Your task to perform on an android device: Search for sushi restaurants on Maps Image 0: 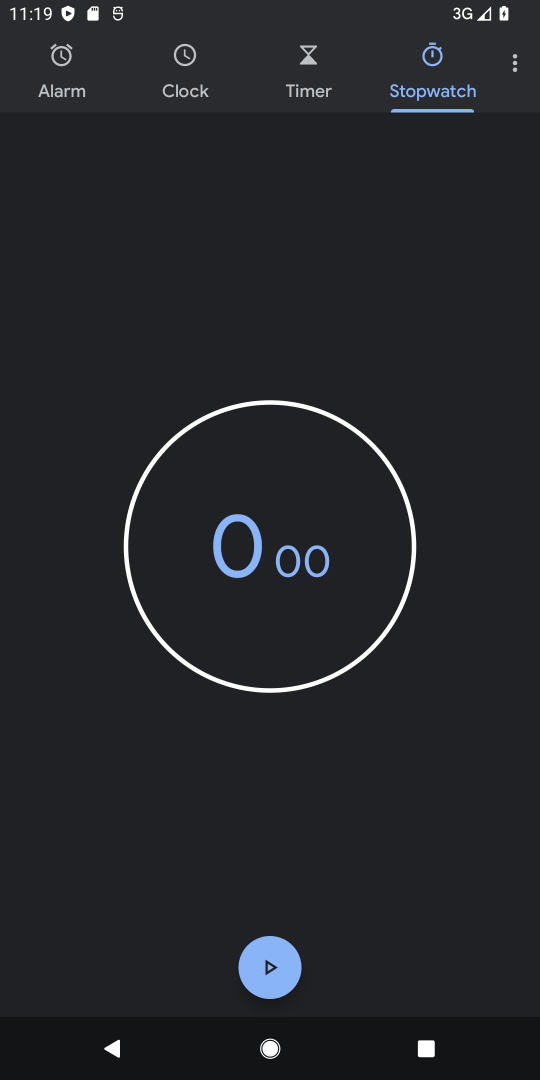
Step 0: press home button
Your task to perform on an android device: Search for sushi restaurants on Maps Image 1: 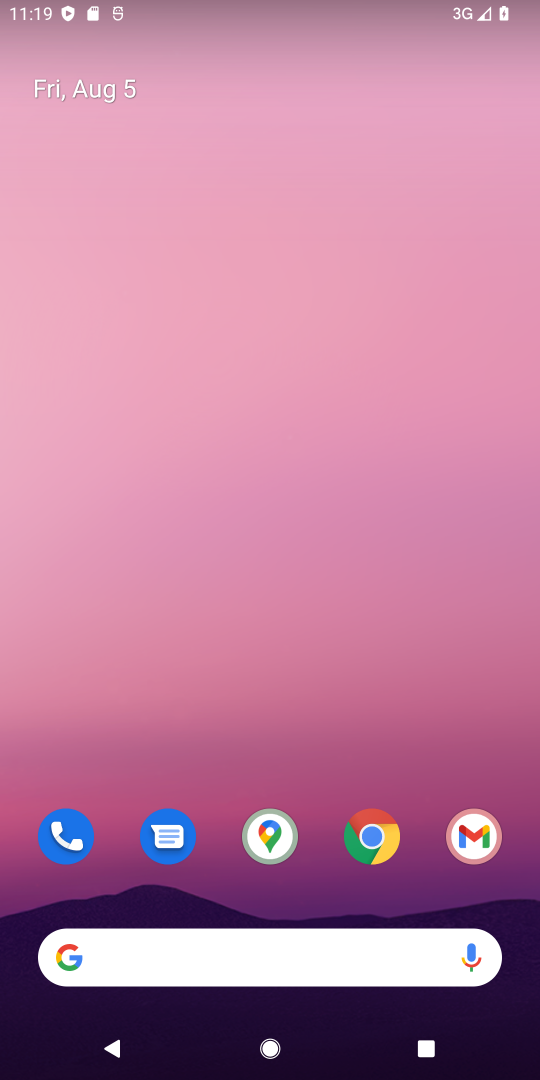
Step 1: drag from (366, 754) to (325, 15)
Your task to perform on an android device: Search for sushi restaurants on Maps Image 2: 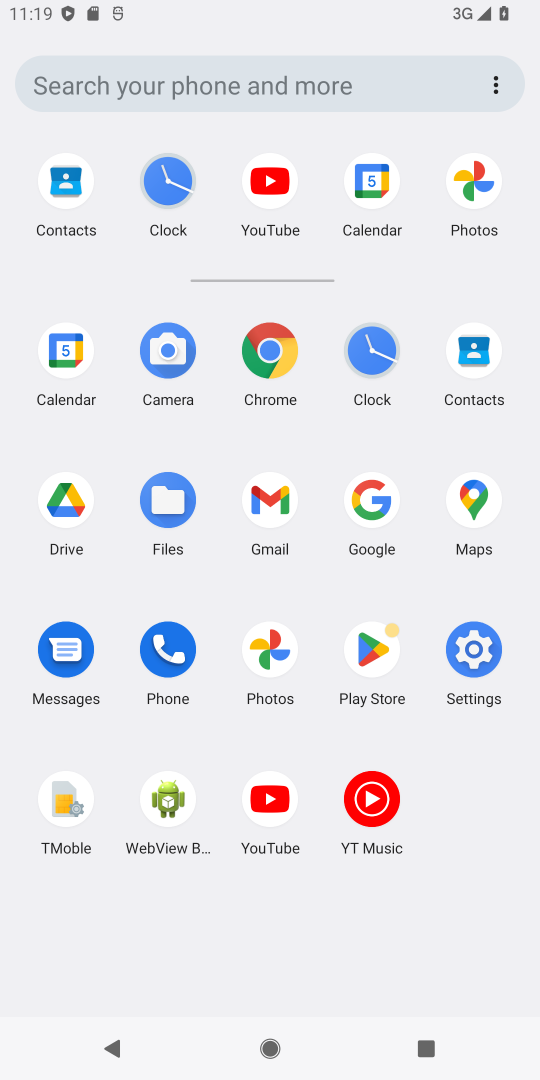
Step 2: click (469, 500)
Your task to perform on an android device: Search for sushi restaurants on Maps Image 3: 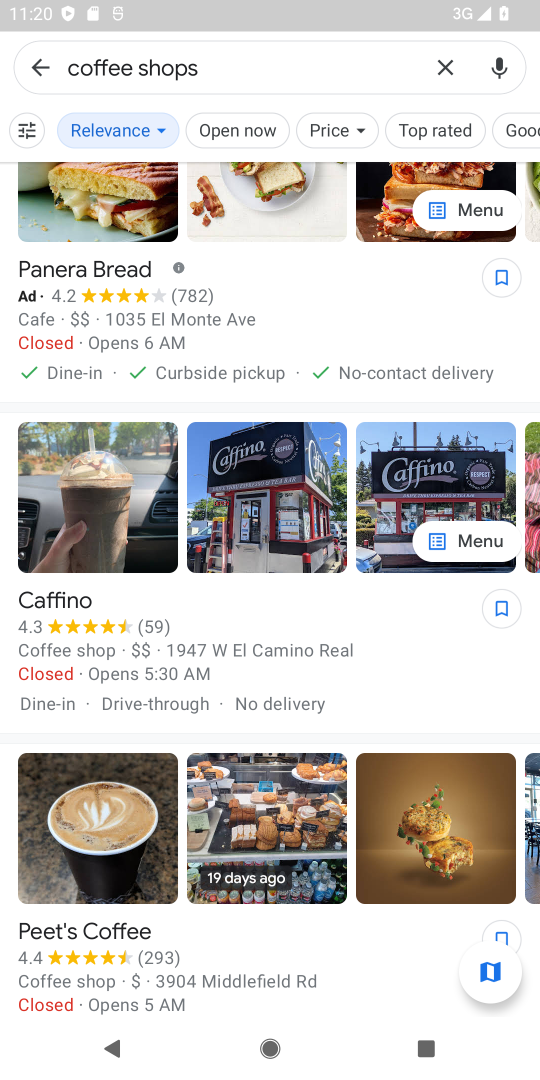
Step 3: click (331, 50)
Your task to perform on an android device: Search for sushi restaurants on Maps Image 4: 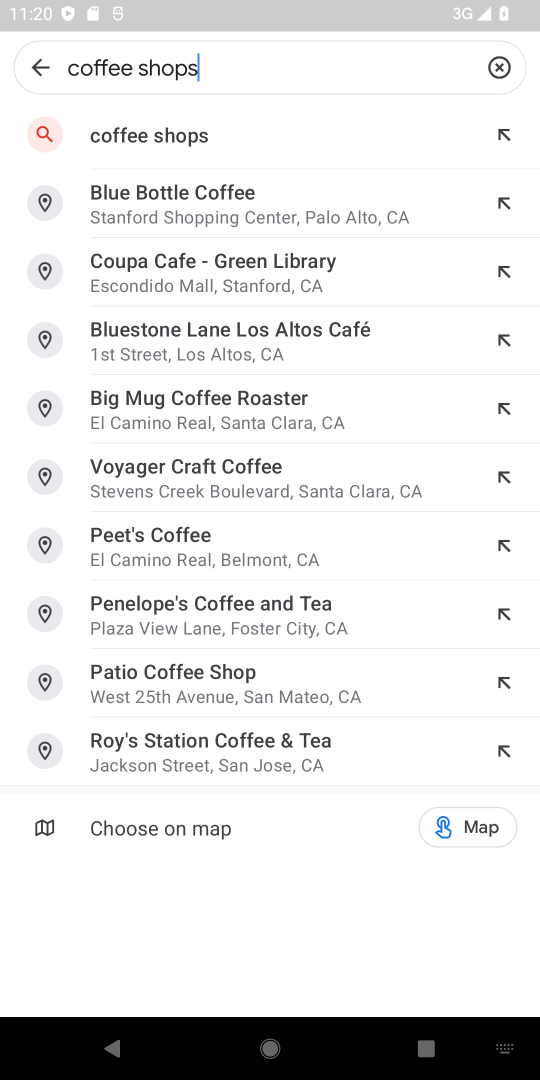
Step 4: click (484, 69)
Your task to perform on an android device: Search for sushi restaurants on Maps Image 5: 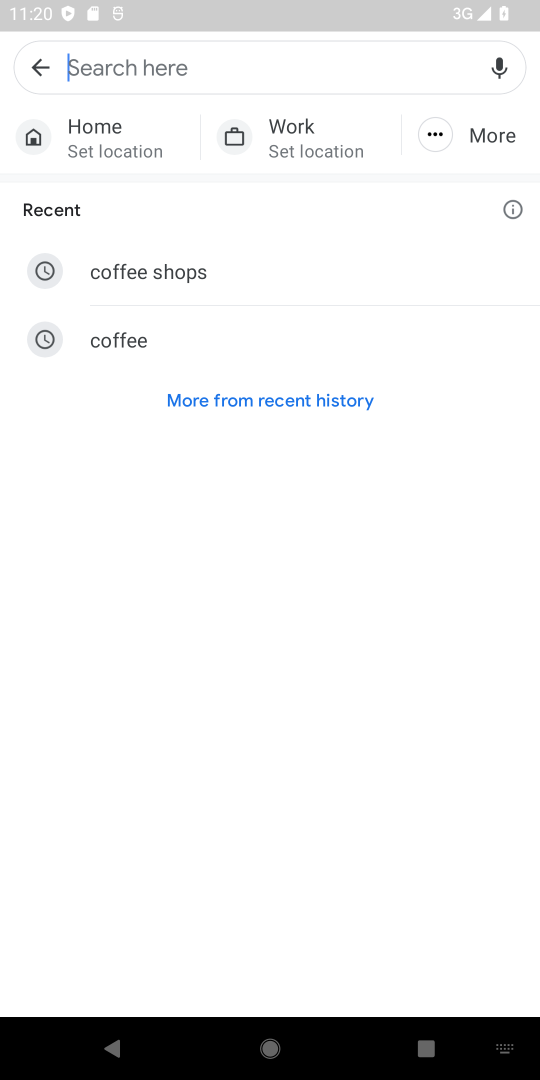
Step 5: type "sushi restaurants"
Your task to perform on an android device: Search for sushi restaurants on Maps Image 6: 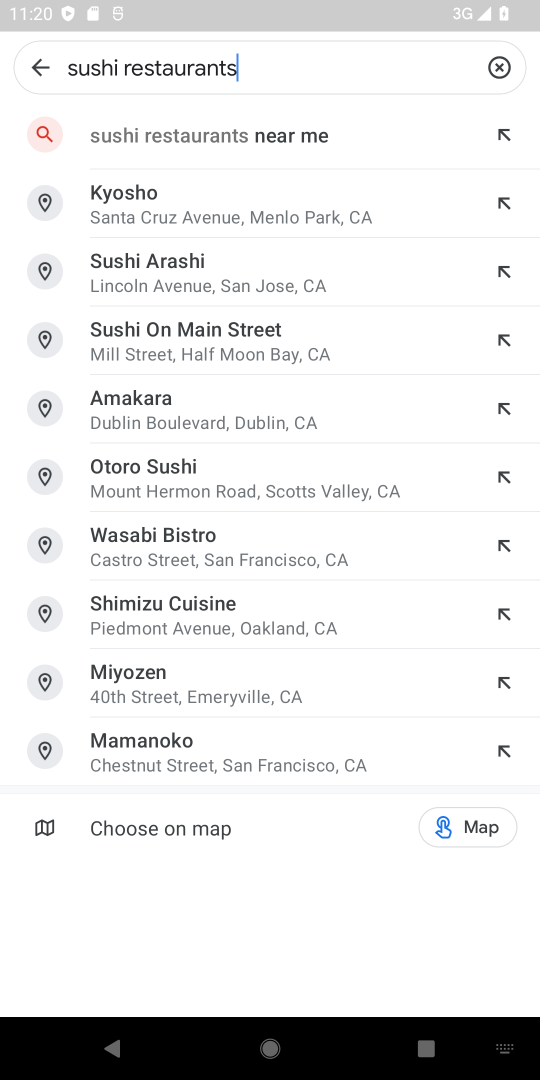
Step 6: press enter
Your task to perform on an android device: Search for sushi restaurants on Maps Image 7: 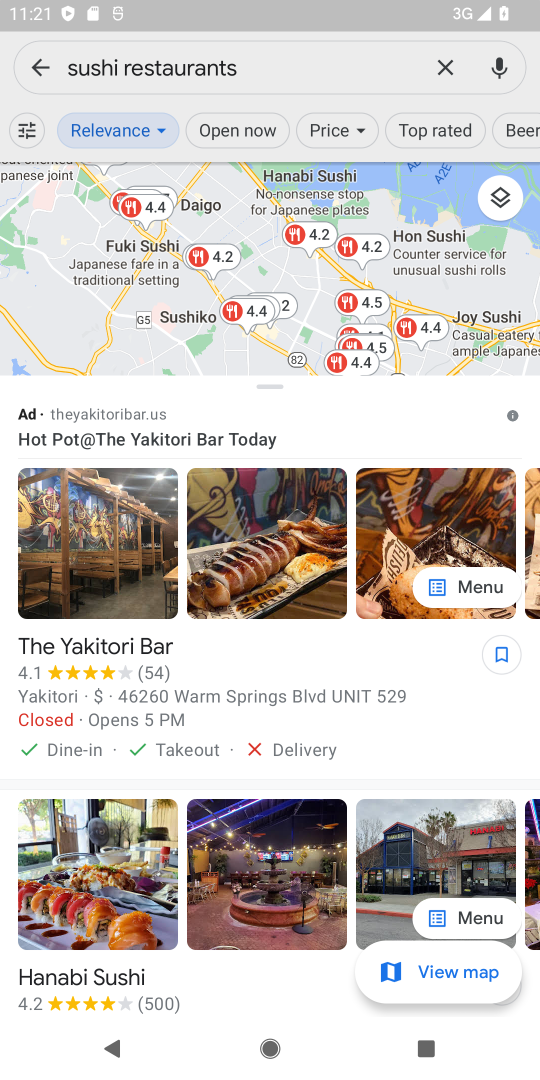
Step 7: task complete